Your task to perform on an android device: set the timer Image 0: 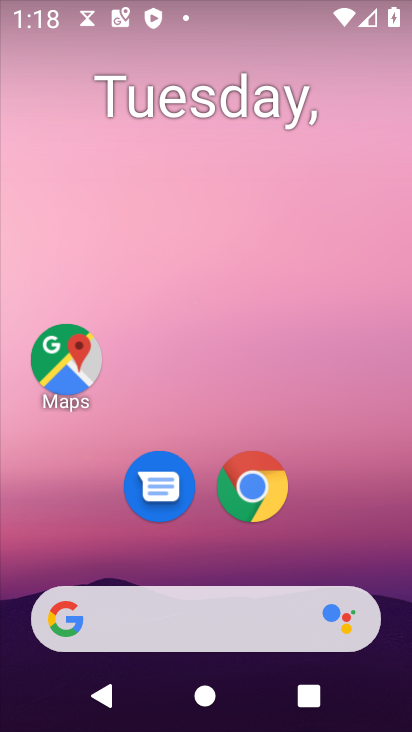
Step 0: drag from (401, 586) to (277, 76)
Your task to perform on an android device: set the timer Image 1: 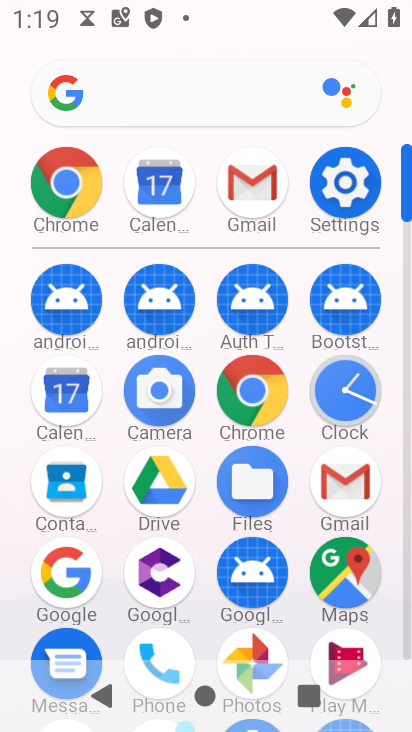
Step 1: click (362, 404)
Your task to perform on an android device: set the timer Image 2: 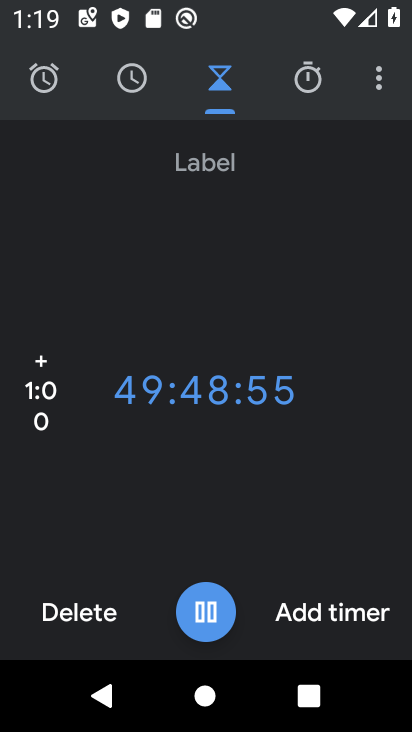
Step 2: task complete